Your task to perform on an android device: turn on the 24-hour format for clock Image 0: 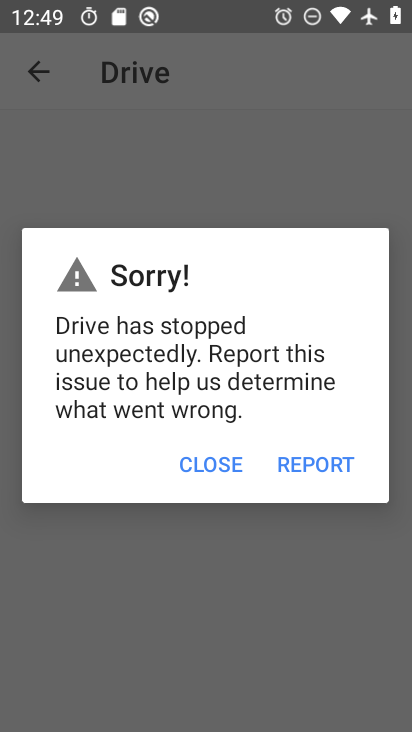
Step 0: press home button
Your task to perform on an android device: turn on the 24-hour format for clock Image 1: 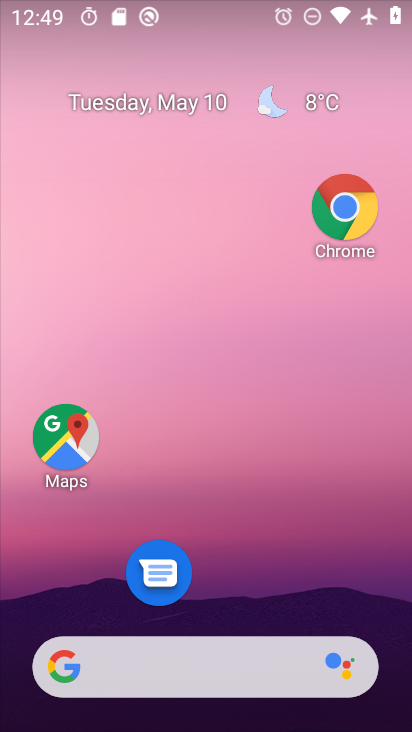
Step 1: drag from (367, 552) to (280, 49)
Your task to perform on an android device: turn on the 24-hour format for clock Image 2: 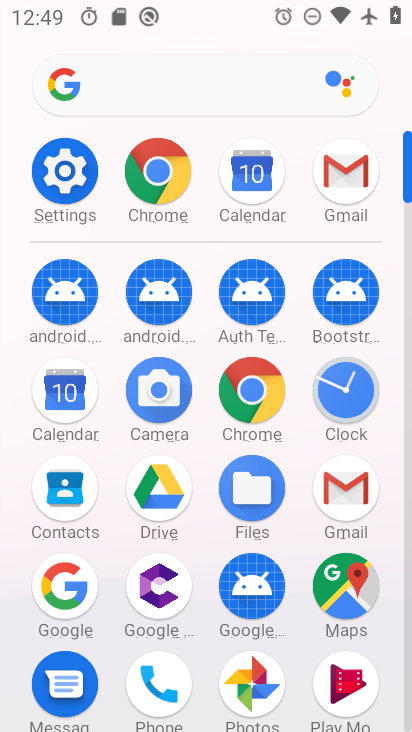
Step 2: click (348, 401)
Your task to perform on an android device: turn on the 24-hour format for clock Image 3: 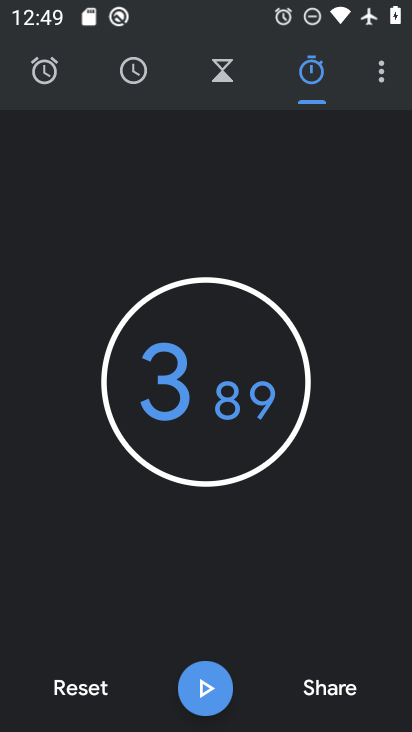
Step 3: click (384, 76)
Your task to perform on an android device: turn on the 24-hour format for clock Image 4: 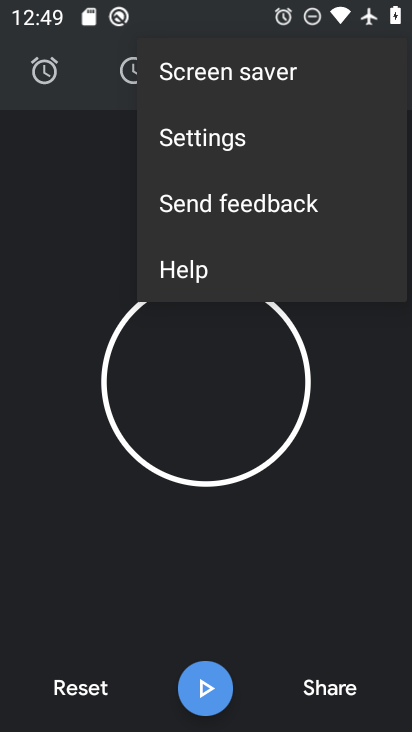
Step 4: click (233, 156)
Your task to perform on an android device: turn on the 24-hour format for clock Image 5: 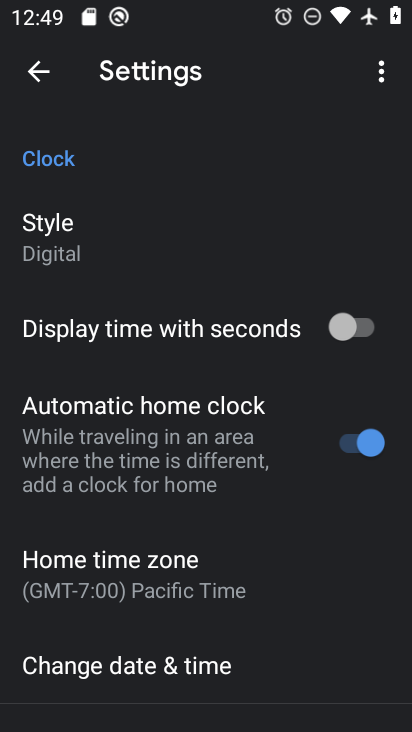
Step 5: drag from (223, 490) to (240, 133)
Your task to perform on an android device: turn on the 24-hour format for clock Image 6: 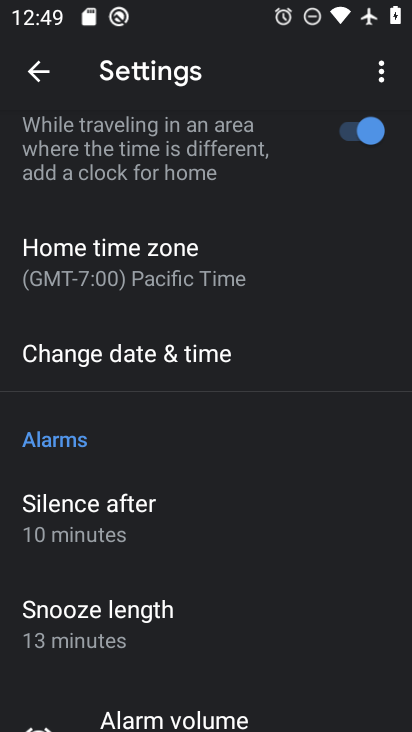
Step 6: click (146, 343)
Your task to perform on an android device: turn on the 24-hour format for clock Image 7: 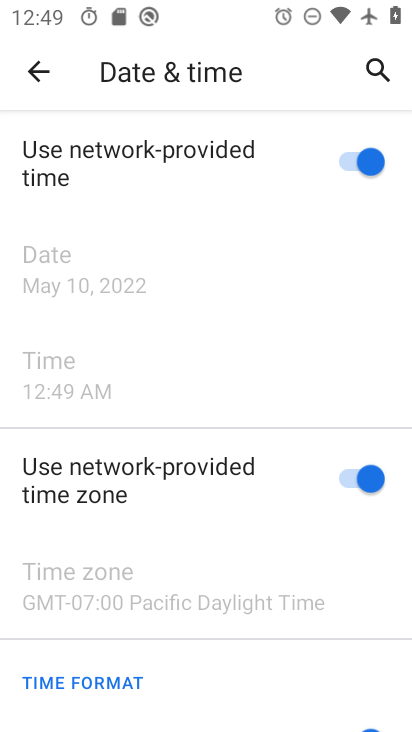
Step 7: drag from (252, 628) to (253, 178)
Your task to perform on an android device: turn on the 24-hour format for clock Image 8: 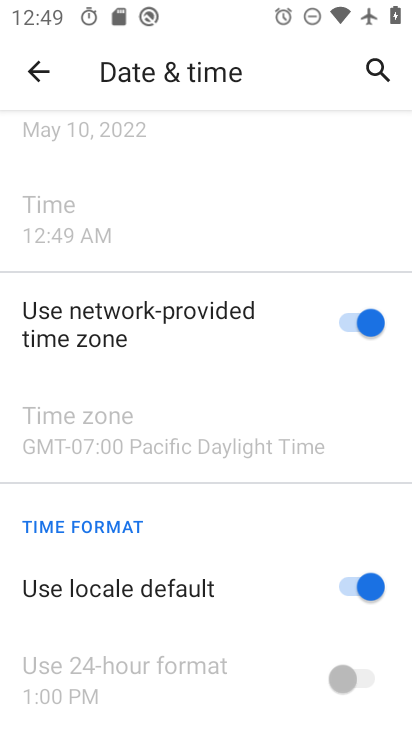
Step 8: click (353, 630)
Your task to perform on an android device: turn on the 24-hour format for clock Image 9: 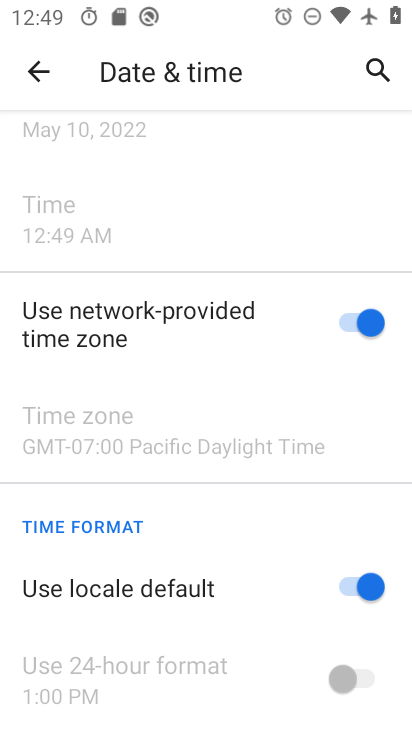
Step 9: click (351, 594)
Your task to perform on an android device: turn on the 24-hour format for clock Image 10: 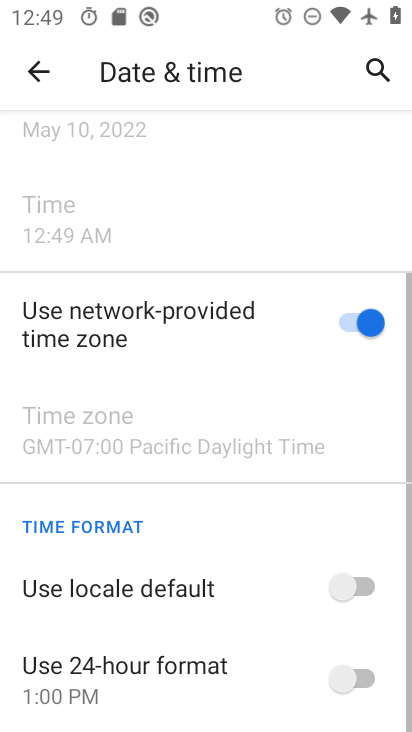
Step 10: click (348, 699)
Your task to perform on an android device: turn on the 24-hour format for clock Image 11: 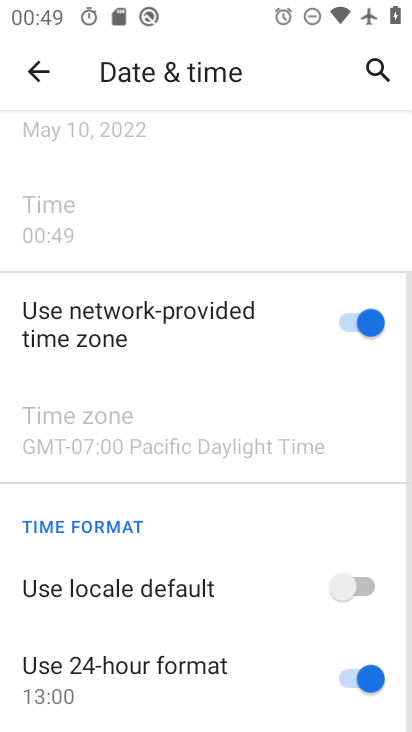
Step 11: task complete